Your task to perform on an android device: Open notification settings Image 0: 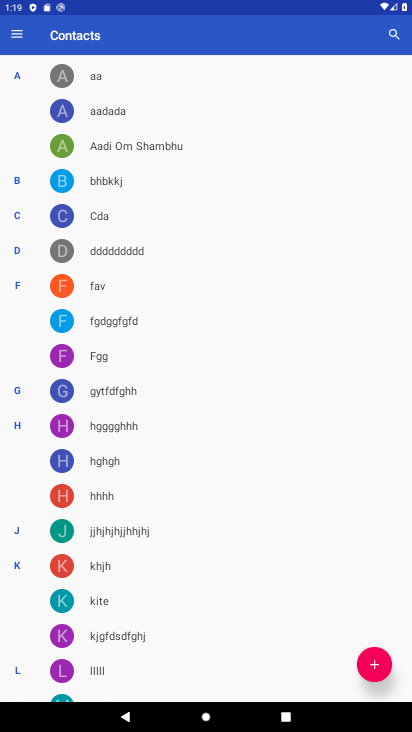
Step 0: press home button
Your task to perform on an android device: Open notification settings Image 1: 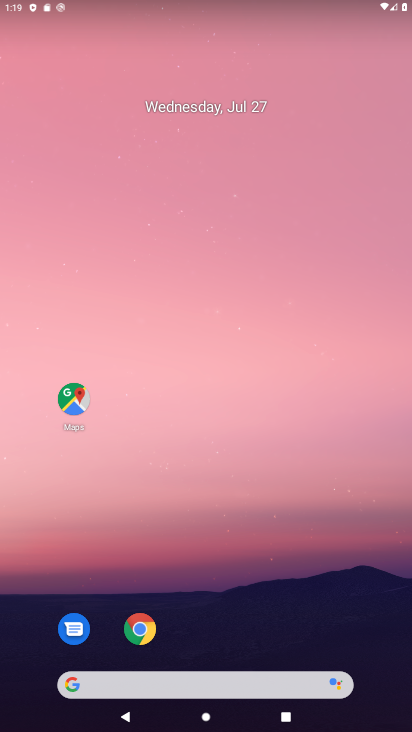
Step 1: drag from (275, 630) to (226, 129)
Your task to perform on an android device: Open notification settings Image 2: 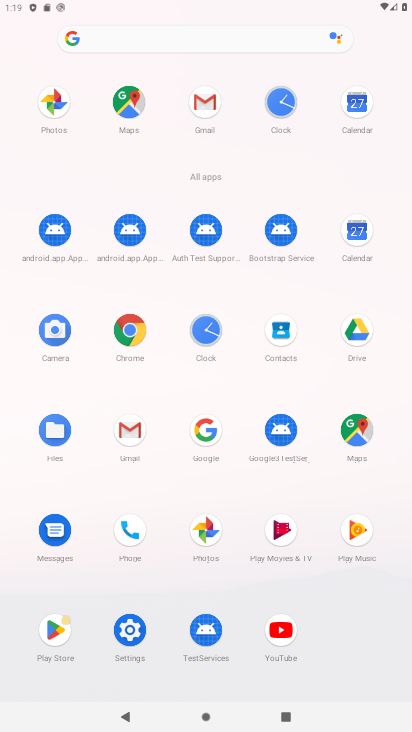
Step 2: click (130, 643)
Your task to perform on an android device: Open notification settings Image 3: 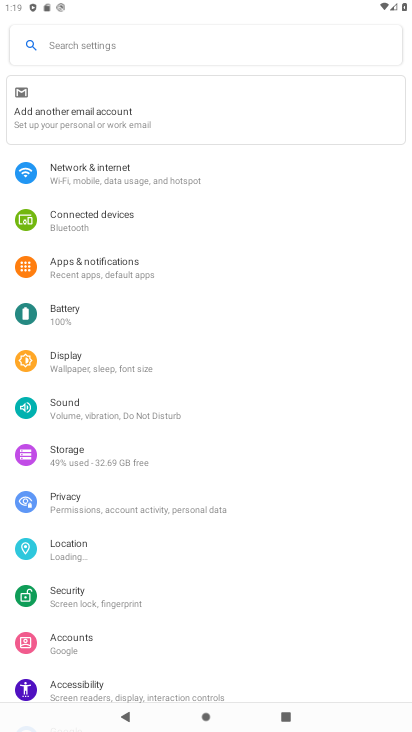
Step 3: click (139, 273)
Your task to perform on an android device: Open notification settings Image 4: 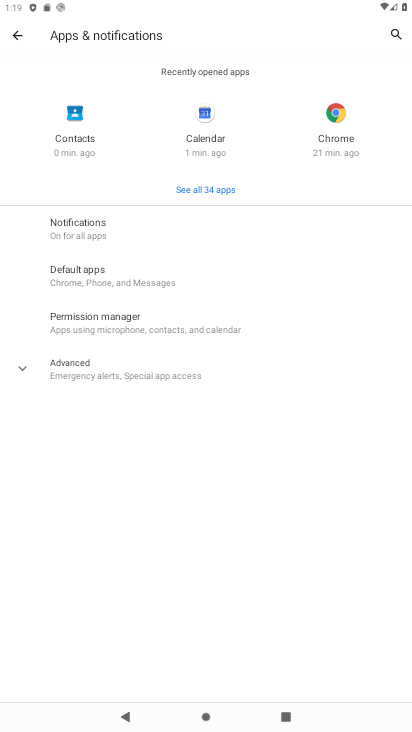
Step 4: click (193, 228)
Your task to perform on an android device: Open notification settings Image 5: 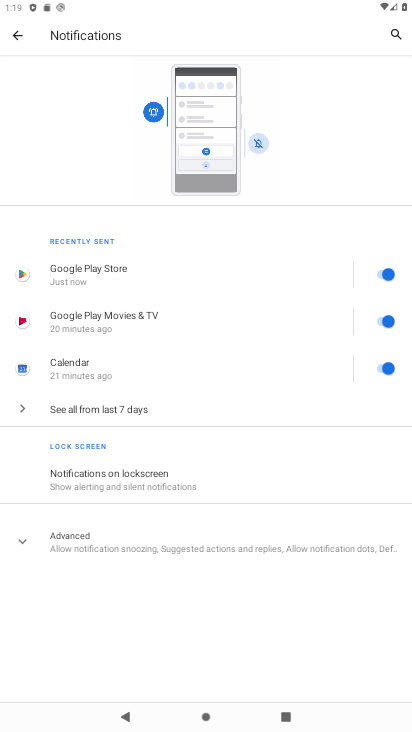
Step 5: task complete